Your task to perform on an android device: open device folders in google photos Image 0: 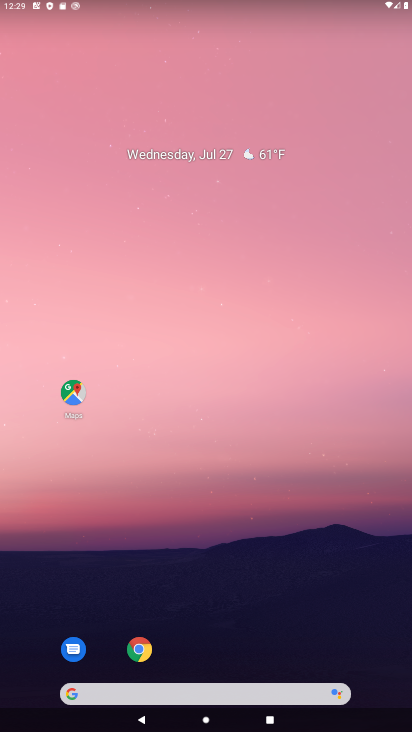
Step 0: drag from (220, 632) to (163, 78)
Your task to perform on an android device: open device folders in google photos Image 1: 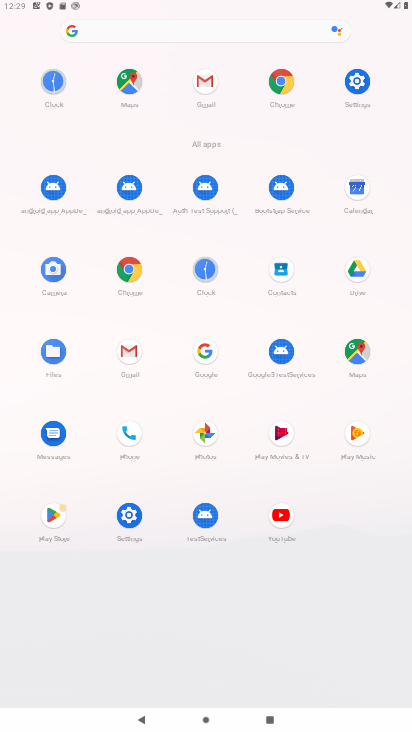
Step 1: click (199, 441)
Your task to perform on an android device: open device folders in google photos Image 2: 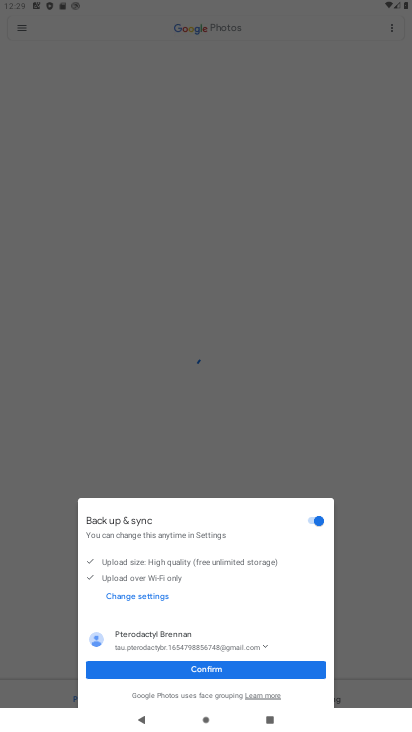
Step 2: click (213, 669)
Your task to perform on an android device: open device folders in google photos Image 3: 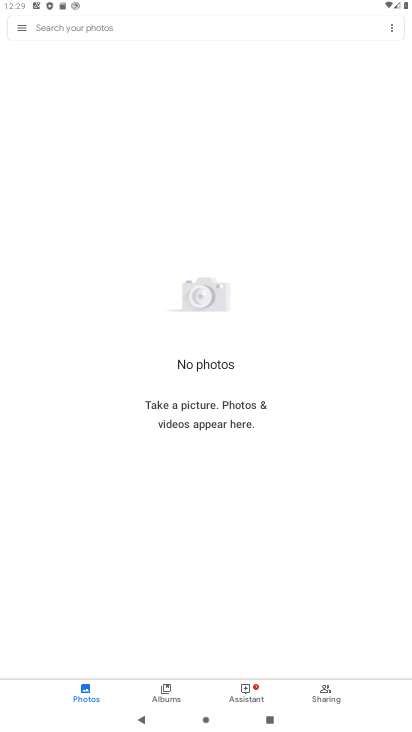
Step 3: click (24, 22)
Your task to perform on an android device: open device folders in google photos Image 4: 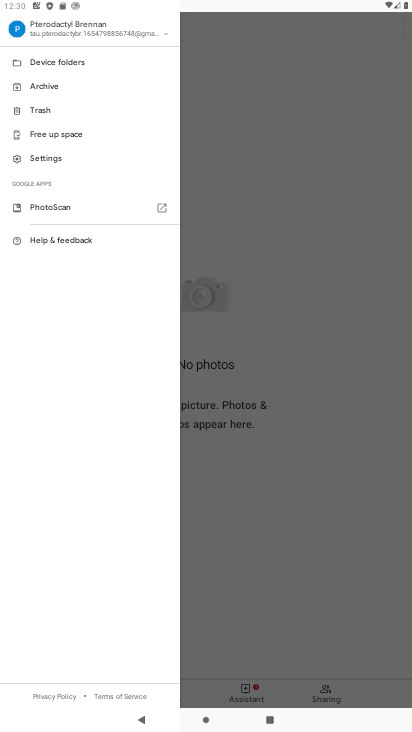
Step 4: click (35, 57)
Your task to perform on an android device: open device folders in google photos Image 5: 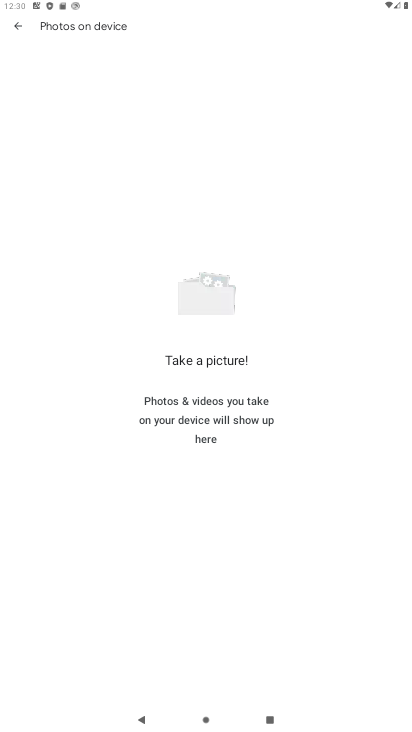
Step 5: task complete